Your task to perform on an android device: turn on sleep mode Image 0: 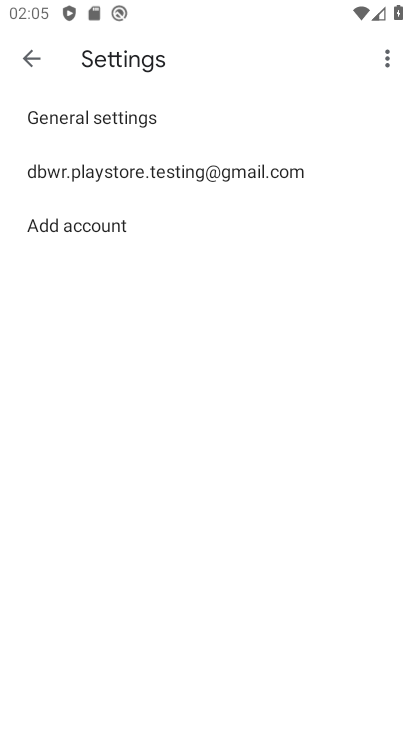
Step 0: press home button
Your task to perform on an android device: turn on sleep mode Image 1: 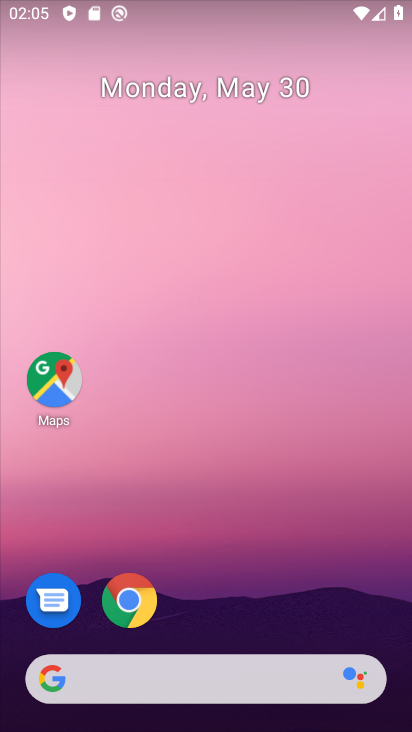
Step 1: drag from (248, 618) to (364, 77)
Your task to perform on an android device: turn on sleep mode Image 2: 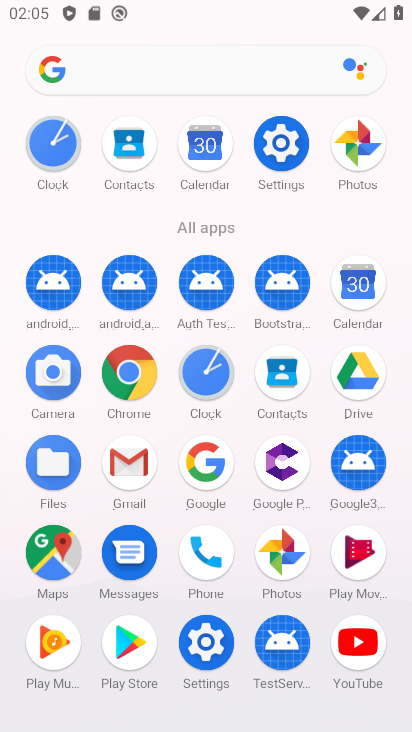
Step 2: click (284, 150)
Your task to perform on an android device: turn on sleep mode Image 3: 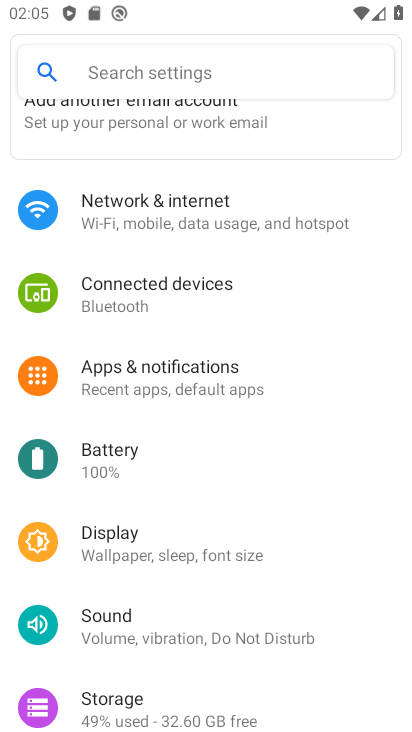
Step 3: click (126, 542)
Your task to perform on an android device: turn on sleep mode Image 4: 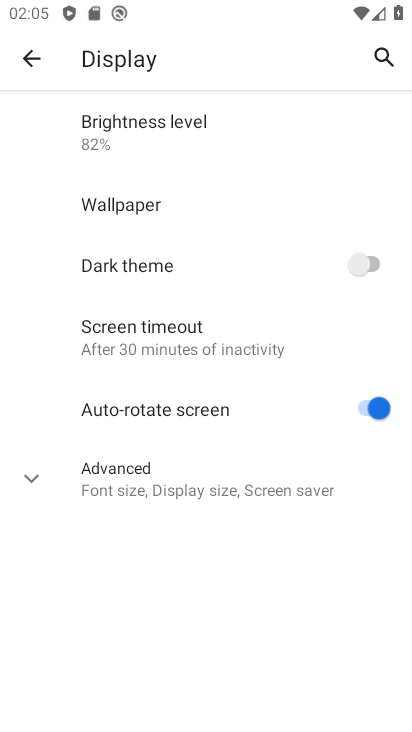
Step 4: click (193, 480)
Your task to perform on an android device: turn on sleep mode Image 5: 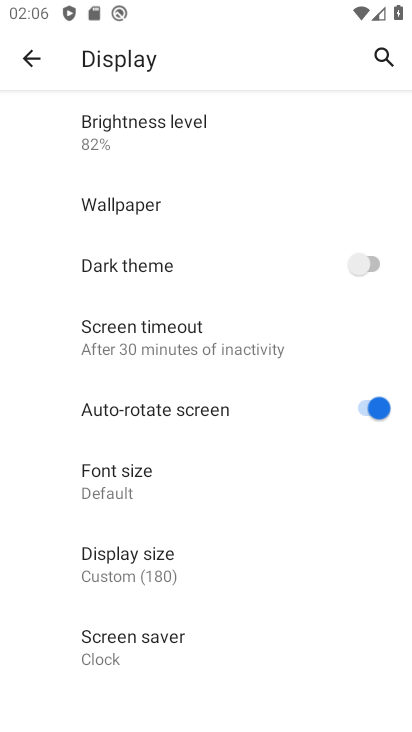
Step 5: task complete